Your task to perform on an android device: Search for sushi restaurants on Maps Image 0: 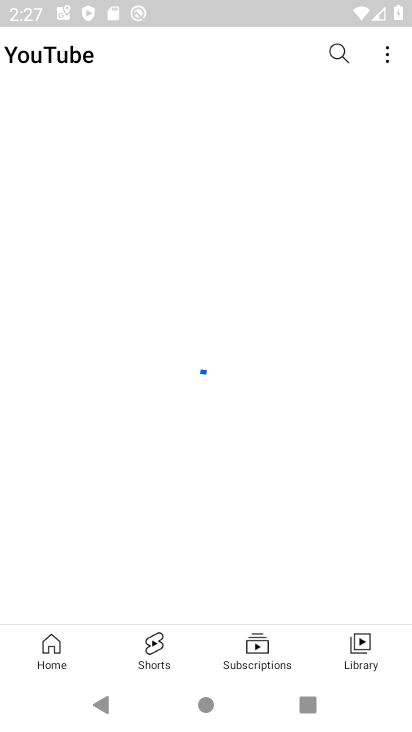
Step 0: drag from (298, 568) to (269, 94)
Your task to perform on an android device: Search for sushi restaurants on Maps Image 1: 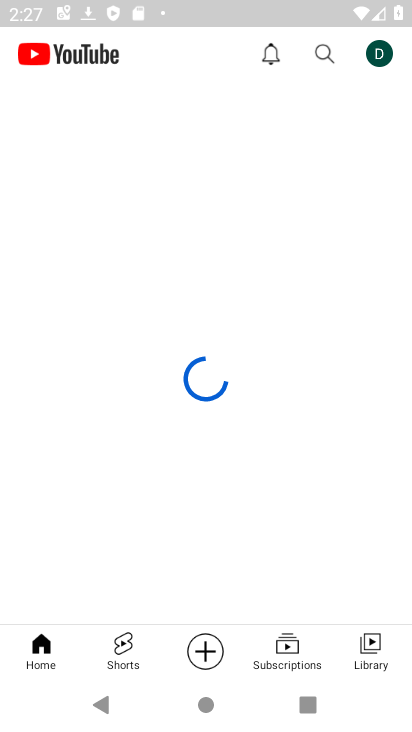
Step 1: press home button
Your task to perform on an android device: Search for sushi restaurants on Maps Image 2: 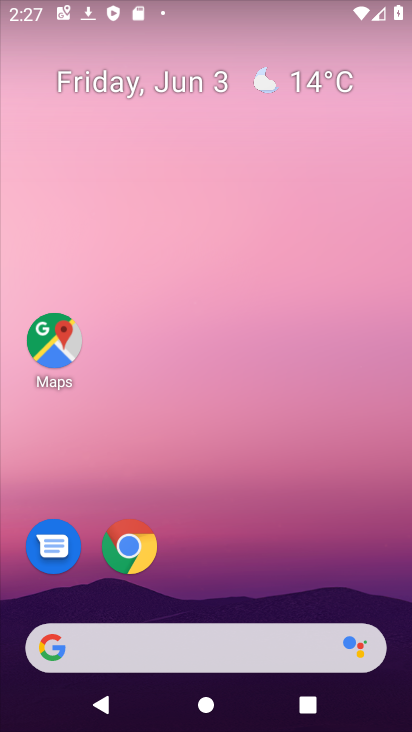
Step 2: drag from (321, 546) to (351, 109)
Your task to perform on an android device: Search for sushi restaurants on Maps Image 3: 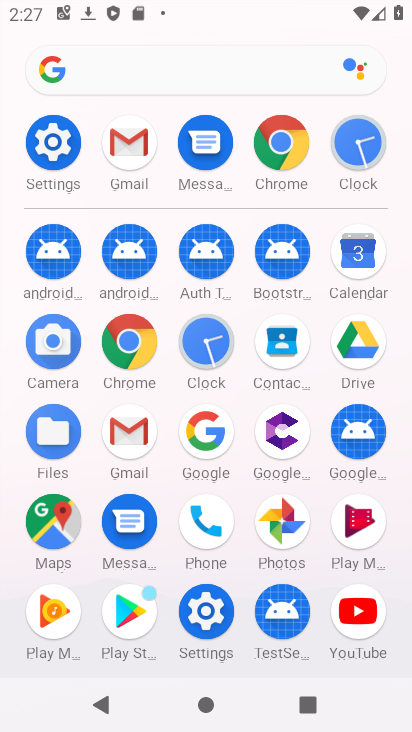
Step 3: drag from (381, 593) to (372, 195)
Your task to perform on an android device: Search for sushi restaurants on Maps Image 4: 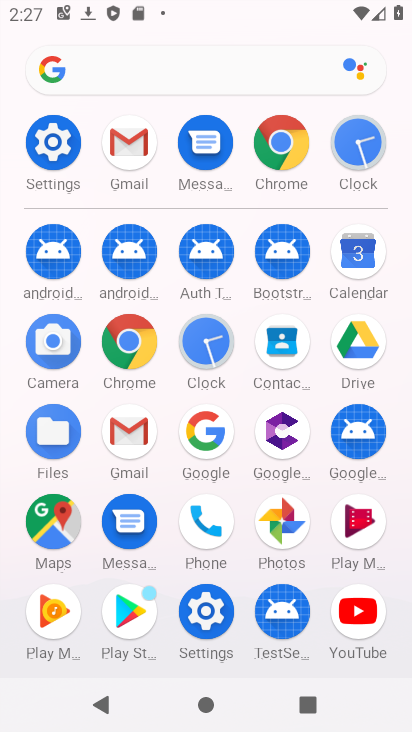
Step 4: click (44, 498)
Your task to perform on an android device: Search for sushi restaurants on Maps Image 5: 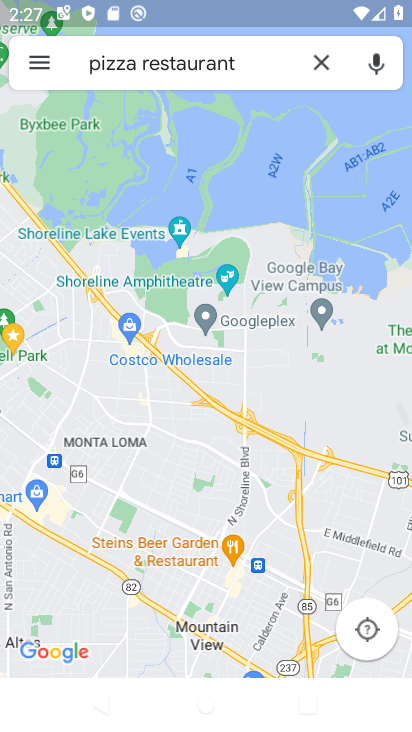
Step 5: click (334, 57)
Your task to perform on an android device: Search for sushi restaurants on Maps Image 6: 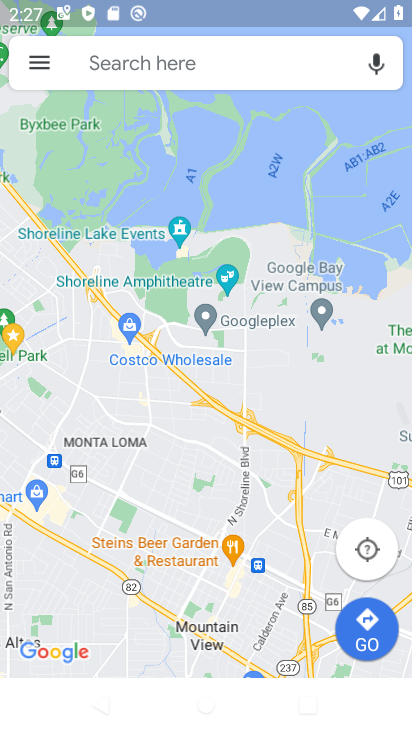
Step 6: click (334, 56)
Your task to perform on an android device: Search for sushi restaurants on Maps Image 7: 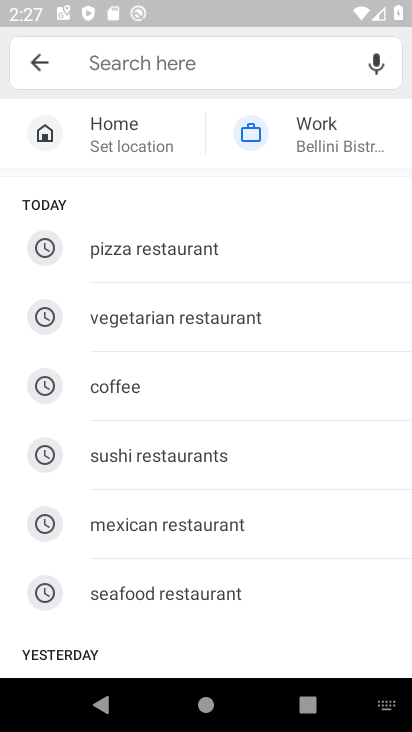
Step 7: click (220, 459)
Your task to perform on an android device: Search for sushi restaurants on Maps Image 8: 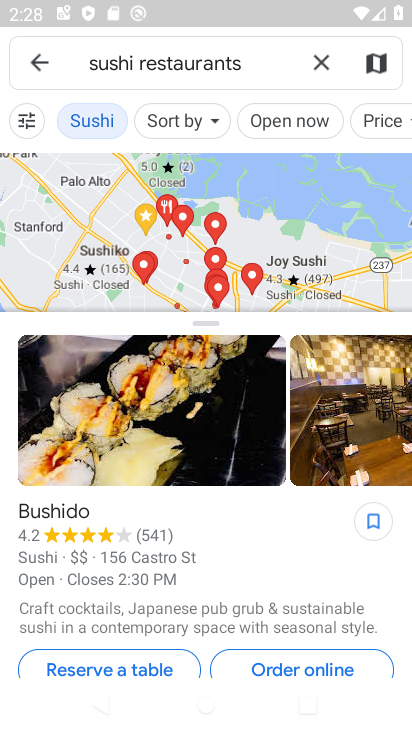
Step 8: task complete